Your task to perform on an android device: turn on airplane mode Image 0: 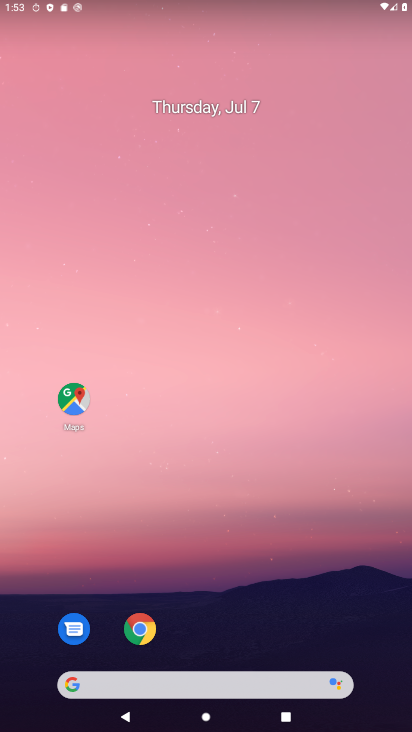
Step 0: drag from (194, 1) to (226, 692)
Your task to perform on an android device: turn on airplane mode Image 1: 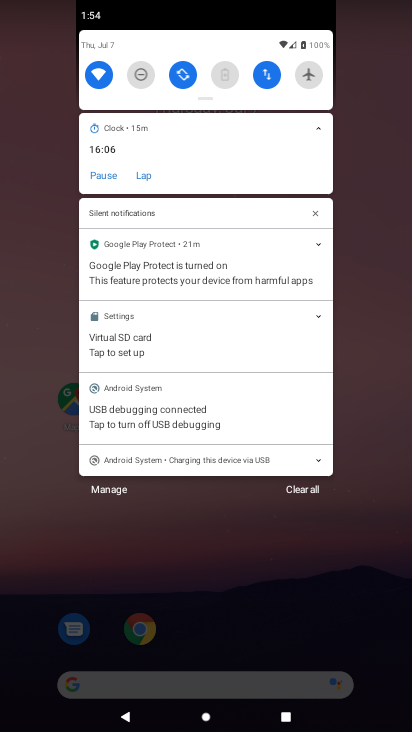
Step 1: click (304, 80)
Your task to perform on an android device: turn on airplane mode Image 2: 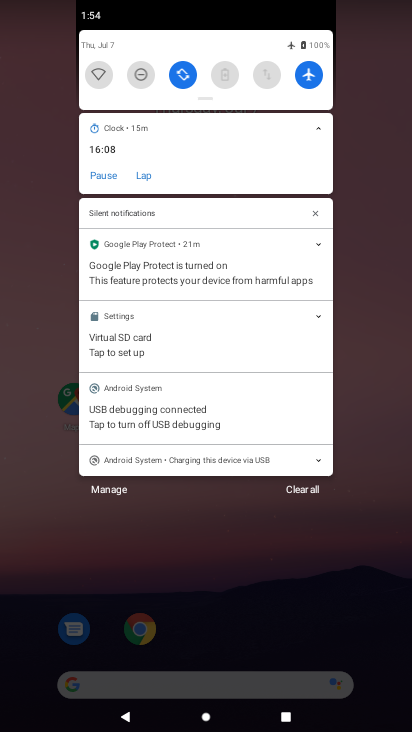
Step 2: task complete